Your task to perform on an android device: Add lg ultragear to the cart on ebay, then select checkout. Image 0: 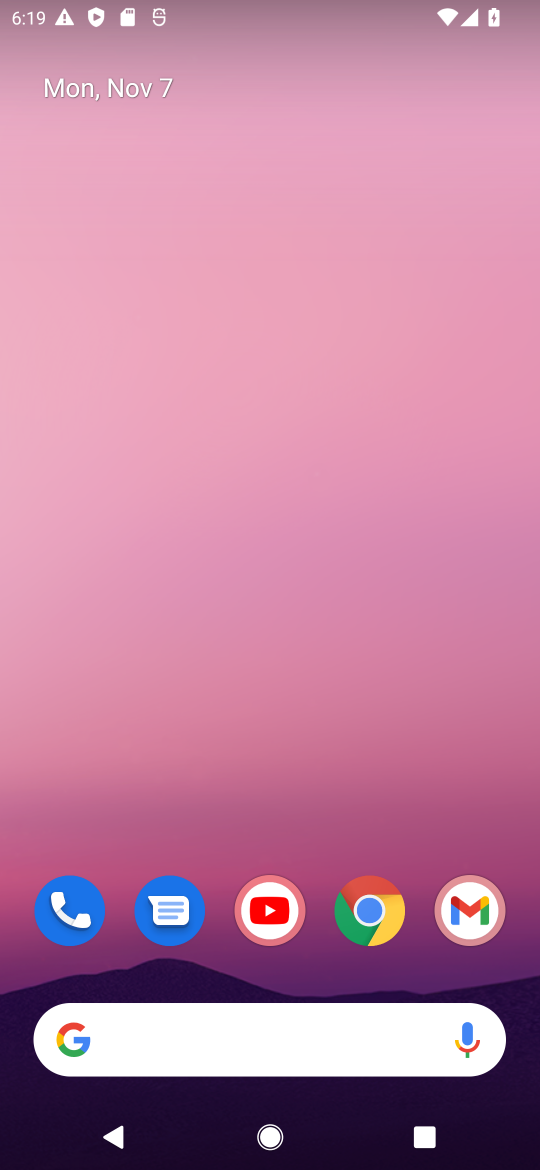
Step 0: click (363, 921)
Your task to perform on an android device: Add lg ultragear to the cart on ebay, then select checkout. Image 1: 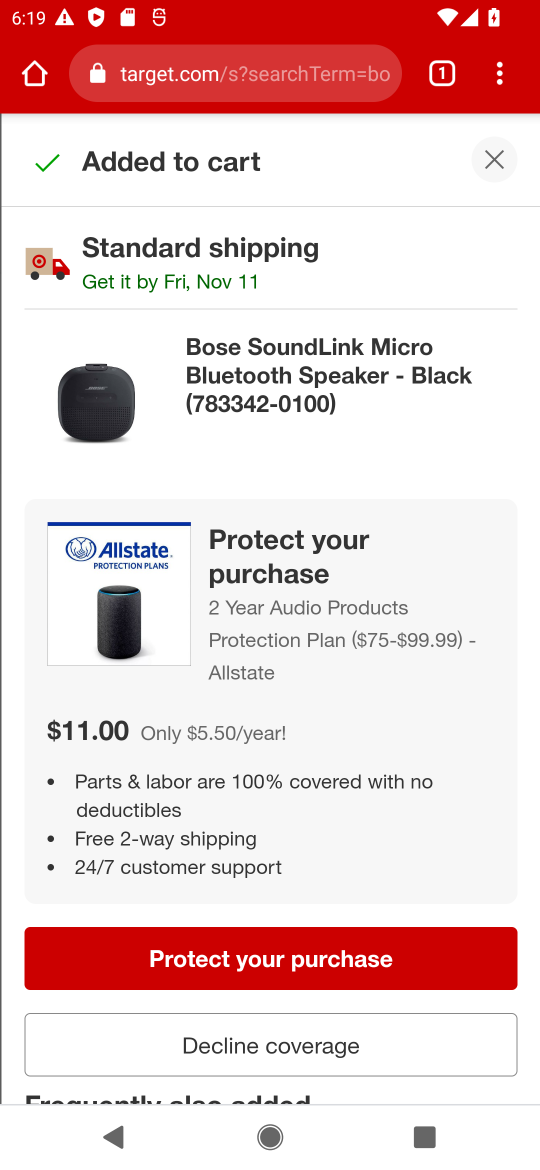
Step 1: click (206, 73)
Your task to perform on an android device: Add lg ultragear to the cart on ebay, then select checkout. Image 2: 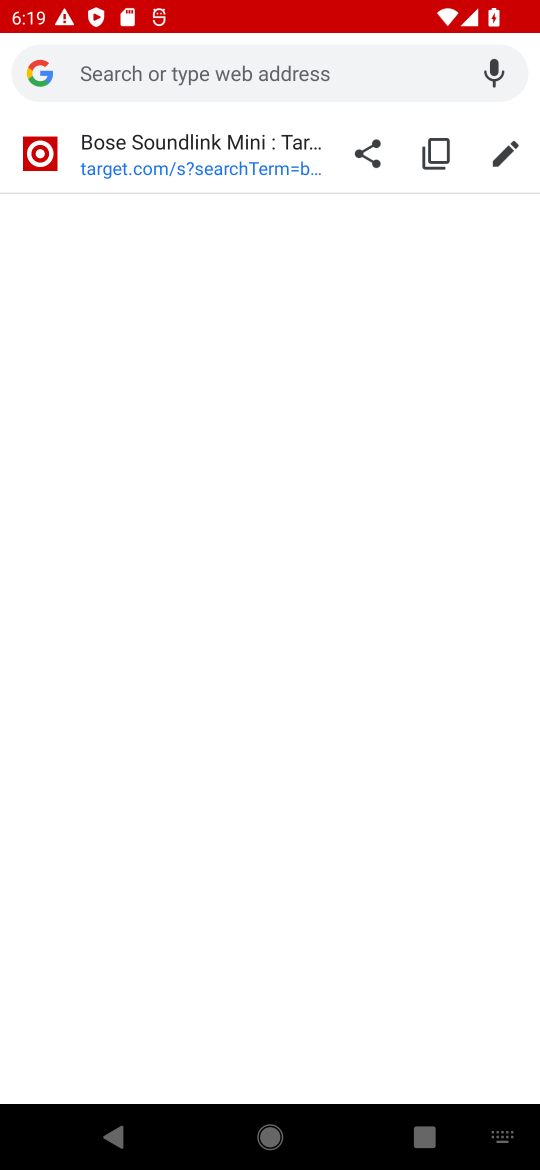
Step 2: type "ebay"
Your task to perform on an android device: Add lg ultragear to the cart on ebay, then select checkout. Image 3: 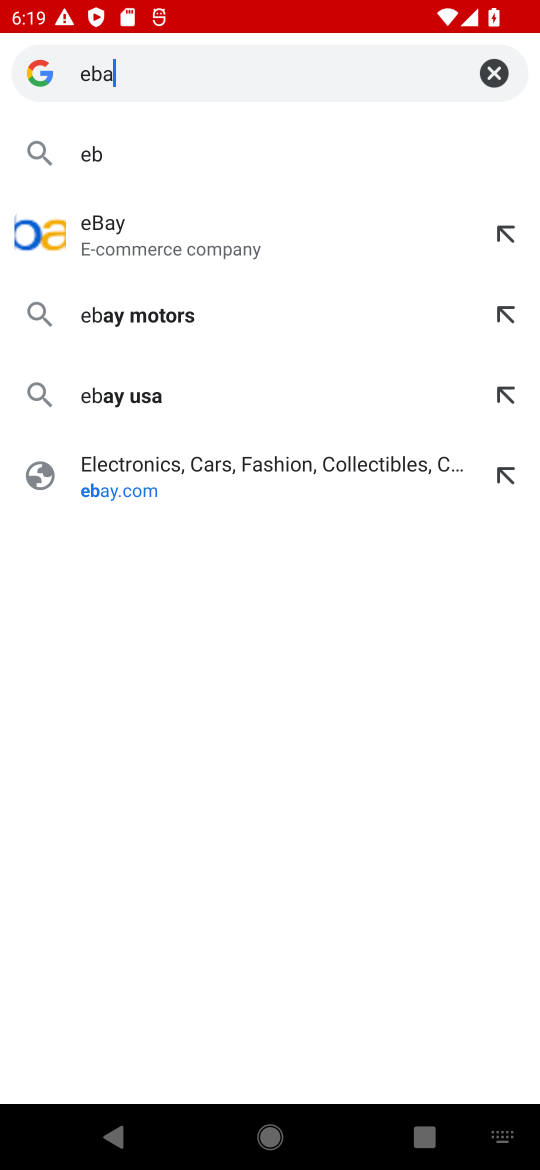
Step 3: press enter
Your task to perform on an android device: Add lg ultragear to the cart on ebay, then select checkout. Image 4: 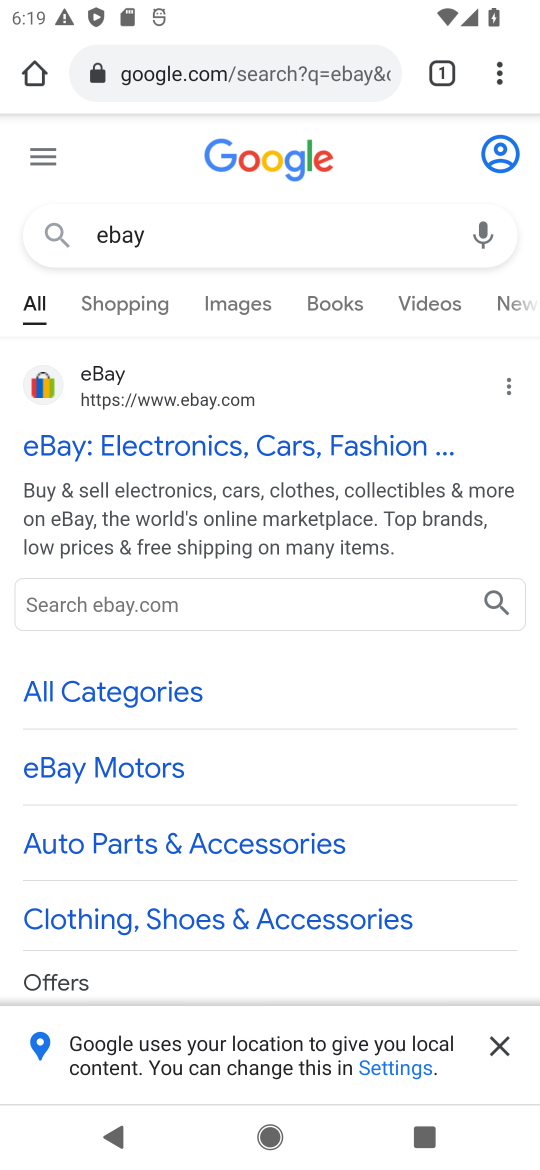
Step 4: click (102, 441)
Your task to perform on an android device: Add lg ultragear to the cart on ebay, then select checkout. Image 5: 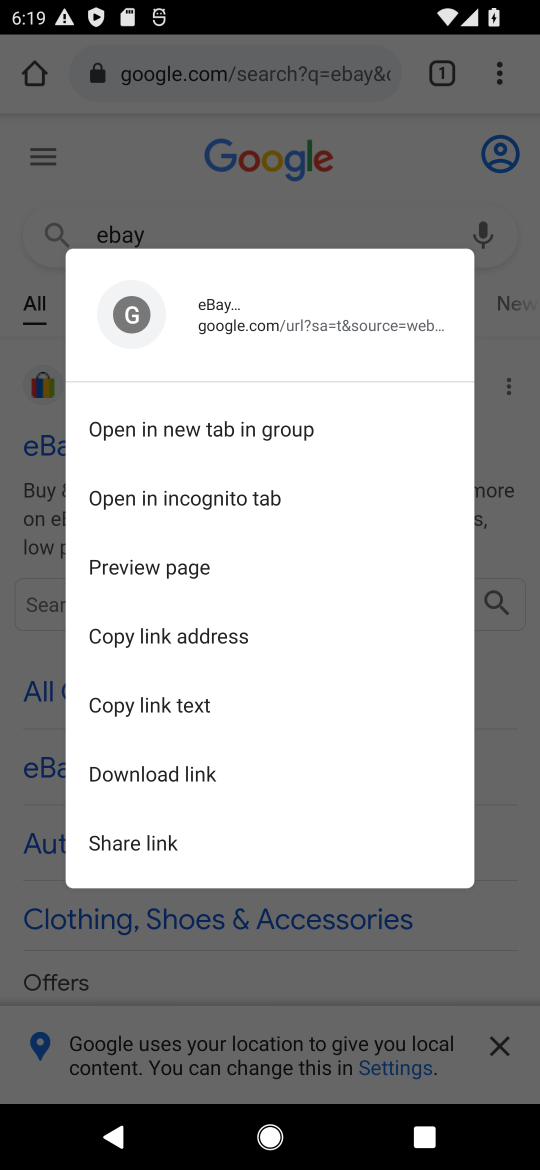
Step 5: click (184, 185)
Your task to perform on an android device: Add lg ultragear to the cart on ebay, then select checkout. Image 6: 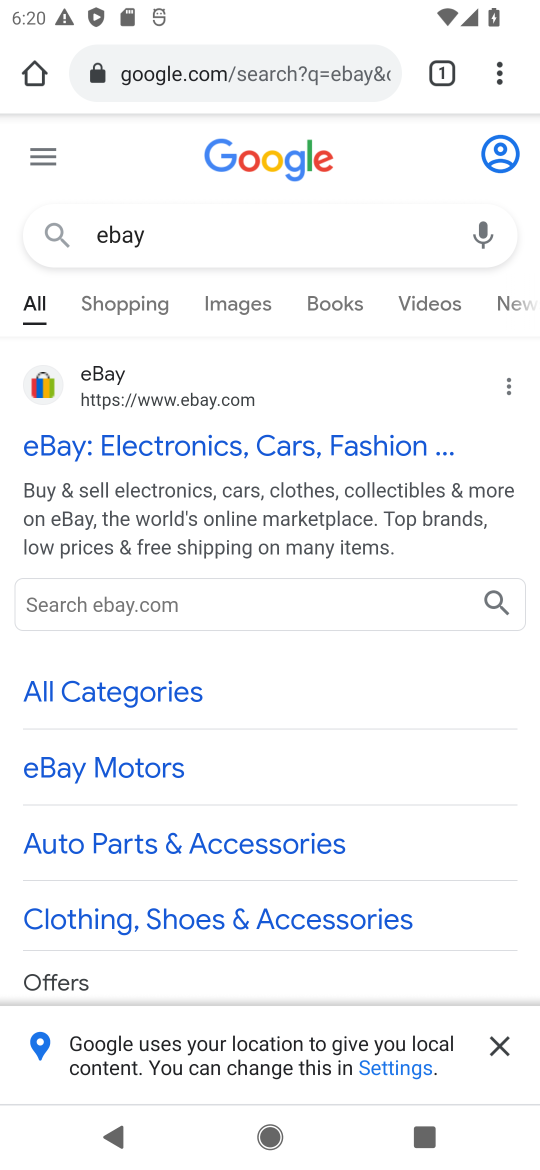
Step 6: click (128, 433)
Your task to perform on an android device: Add lg ultragear to the cart on ebay, then select checkout. Image 7: 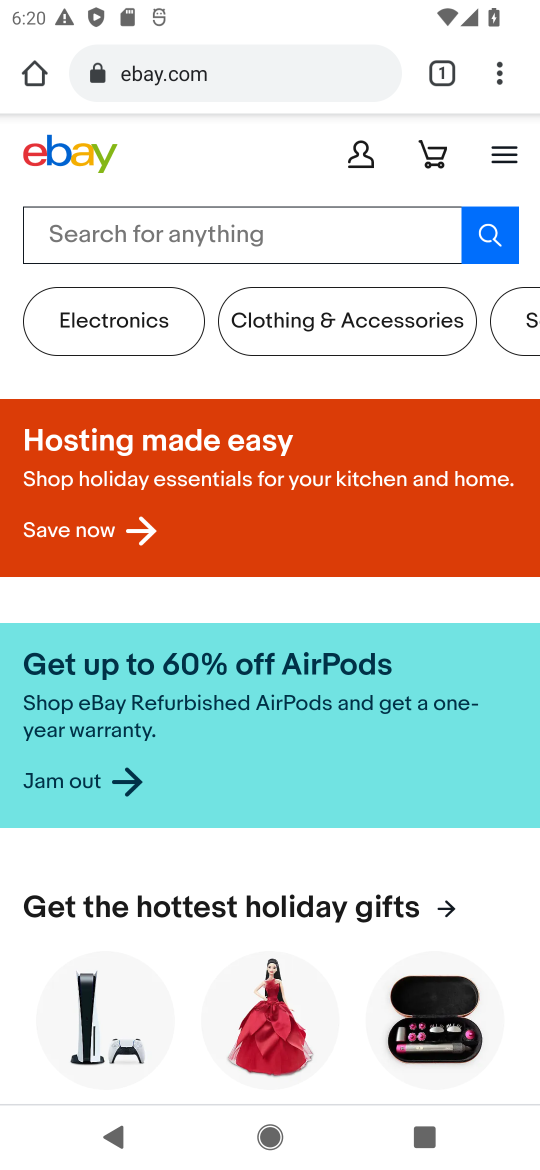
Step 7: click (201, 249)
Your task to perform on an android device: Add lg ultragear to the cart on ebay, then select checkout. Image 8: 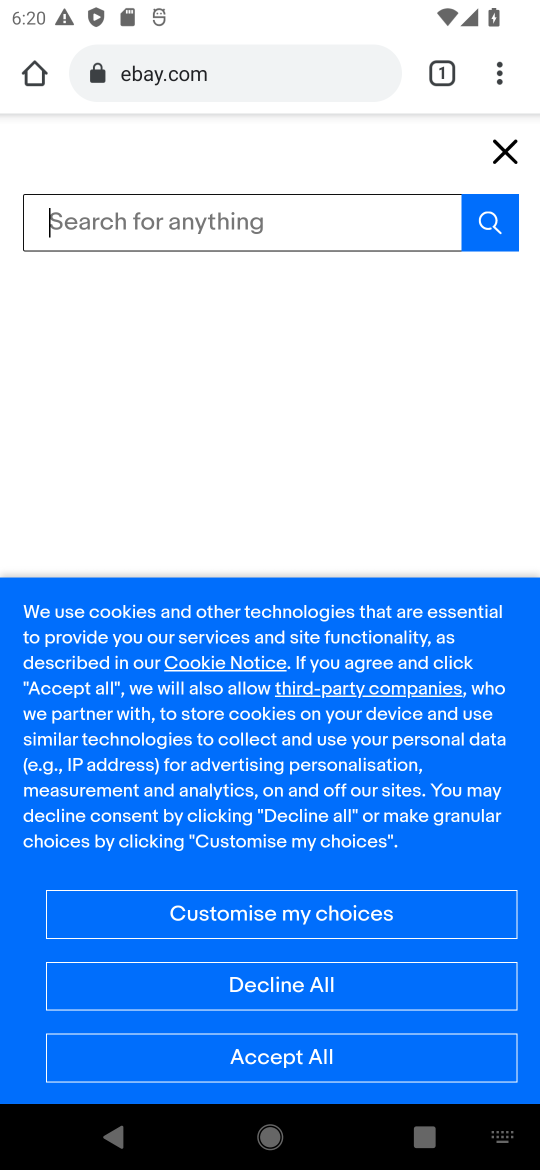
Step 8: type "lg ultragear"
Your task to perform on an android device: Add lg ultragear to the cart on ebay, then select checkout. Image 9: 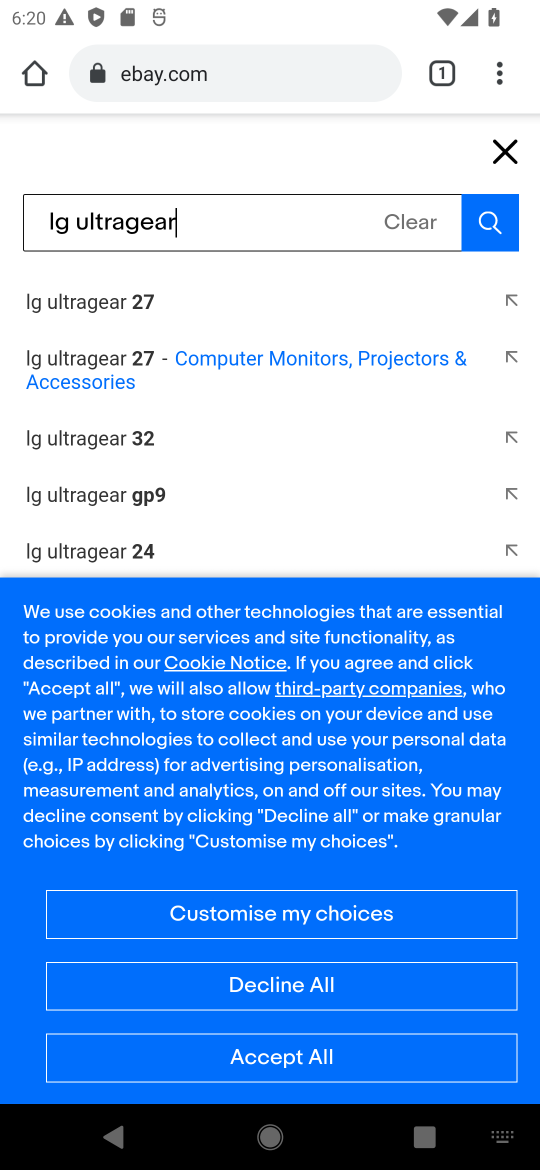
Step 9: click (494, 220)
Your task to perform on an android device: Add lg ultragear to the cart on ebay, then select checkout. Image 10: 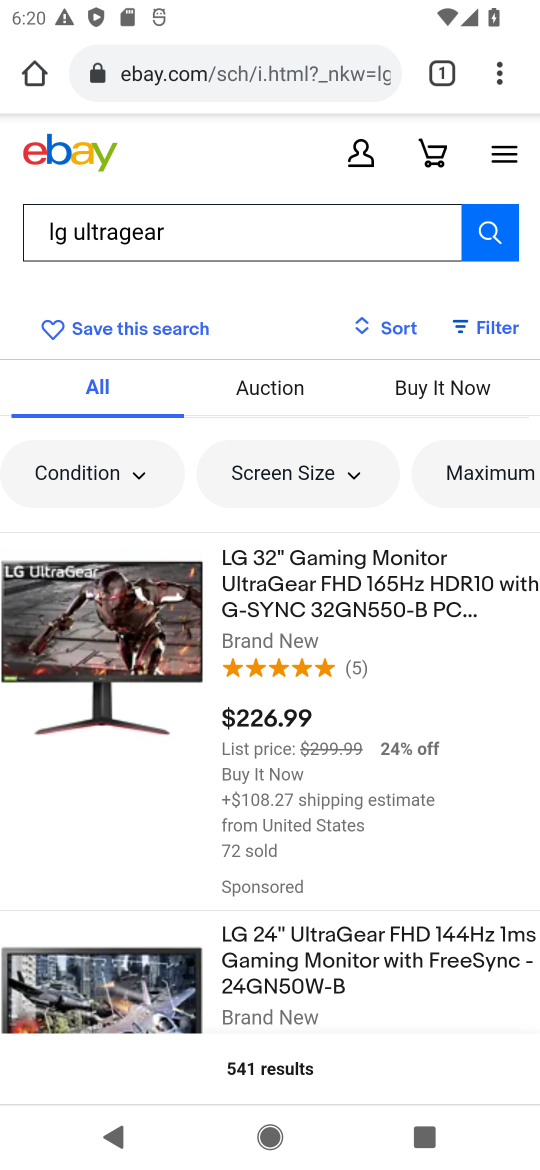
Step 10: click (178, 650)
Your task to perform on an android device: Add lg ultragear to the cart on ebay, then select checkout. Image 11: 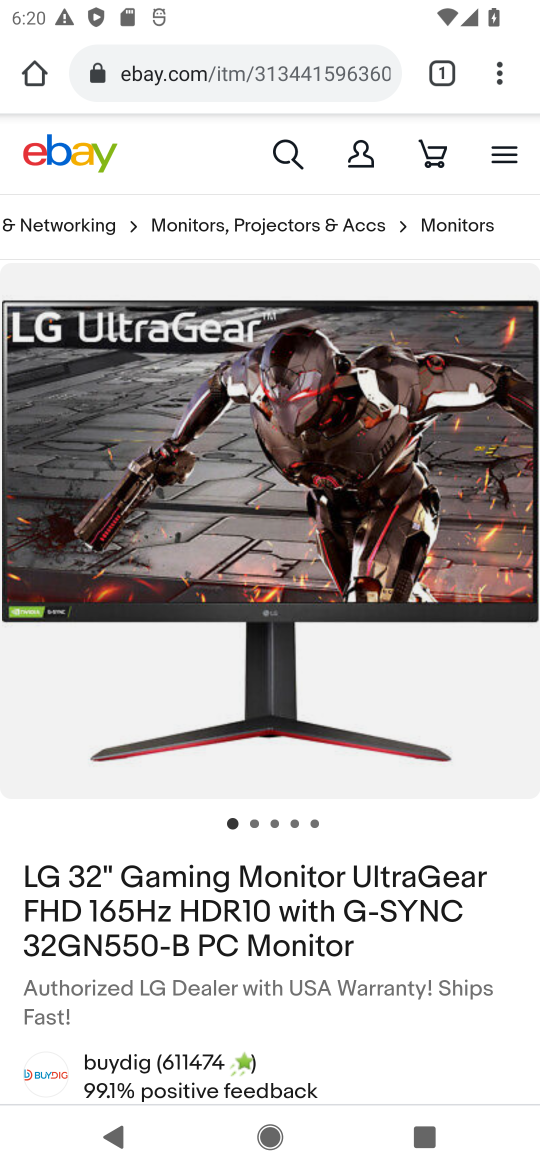
Step 11: drag from (308, 940) to (338, 368)
Your task to perform on an android device: Add lg ultragear to the cart on ebay, then select checkout. Image 12: 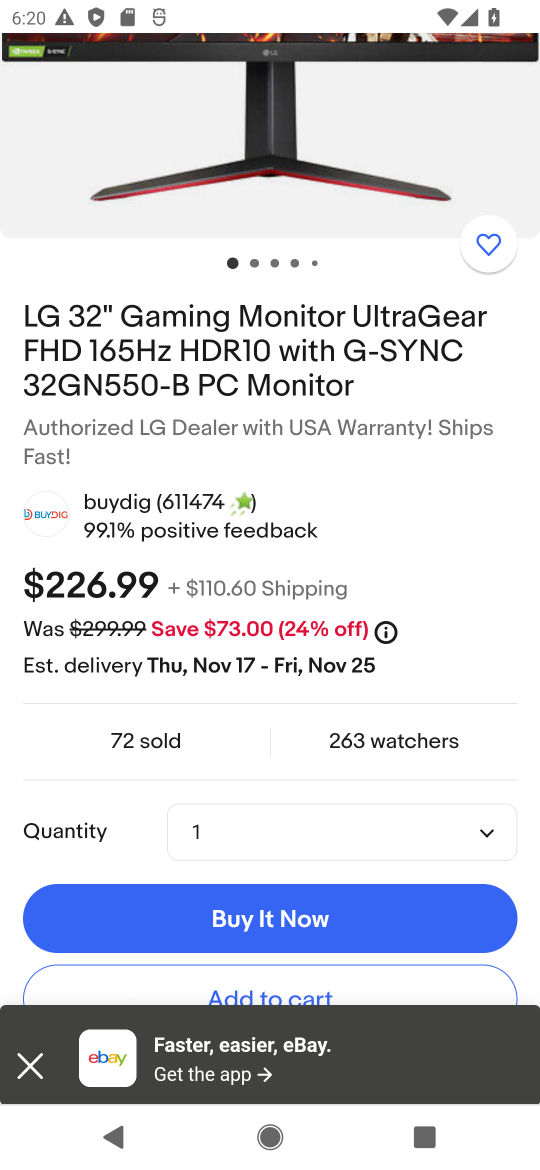
Step 12: click (311, 1002)
Your task to perform on an android device: Add lg ultragear to the cart on ebay, then select checkout. Image 13: 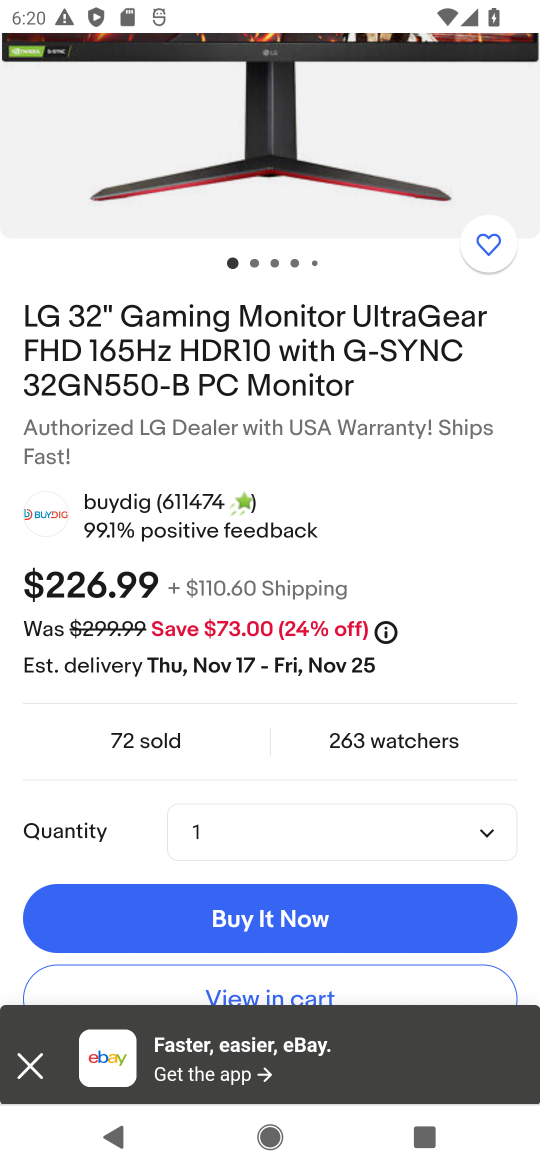
Step 13: click (307, 994)
Your task to perform on an android device: Add lg ultragear to the cart on ebay, then select checkout. Image 14: 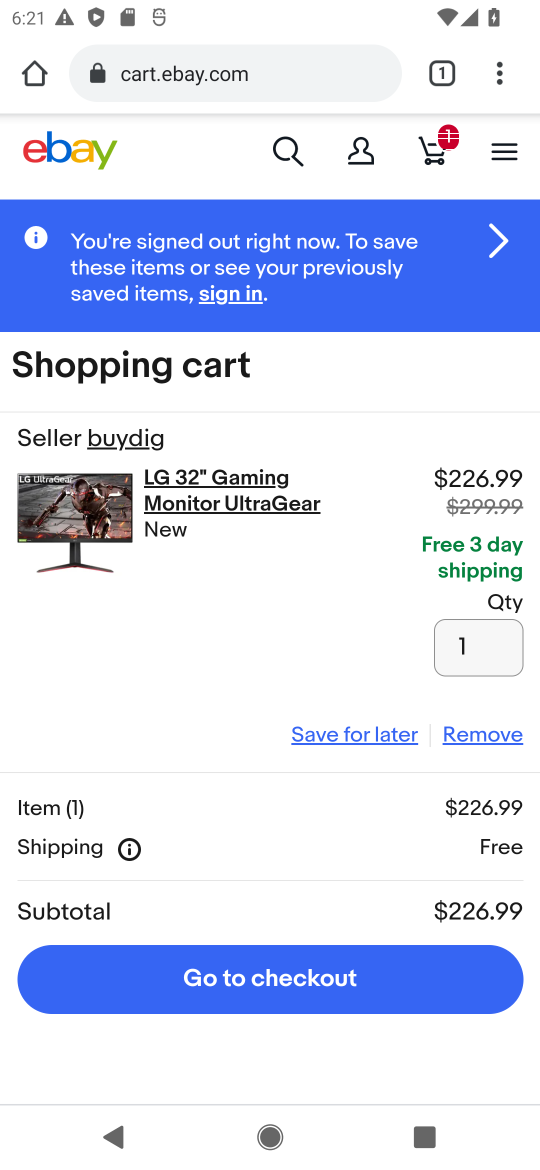
Step 14: click (299, 980)
Your task to perform on an android device: Add lg ultragear to the cart on ebay, then select checkout. Image 15: 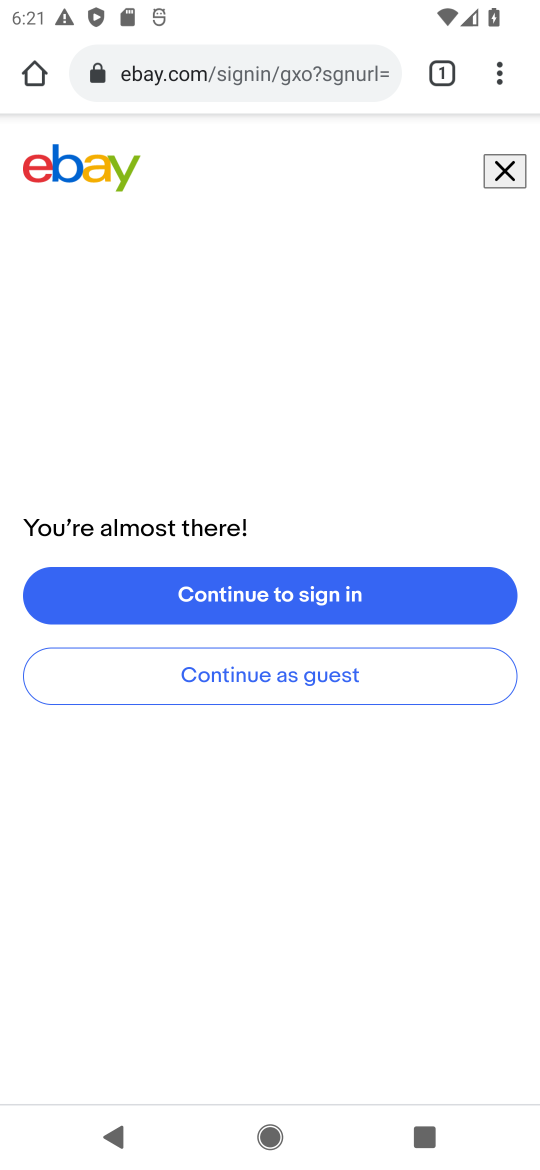
Step 15: task complete